Your task to perform on an android device: Search for "bose quietcomfort 35" on walmart.com, select the first entry, add it to the cart, then select checkout. Image 0: 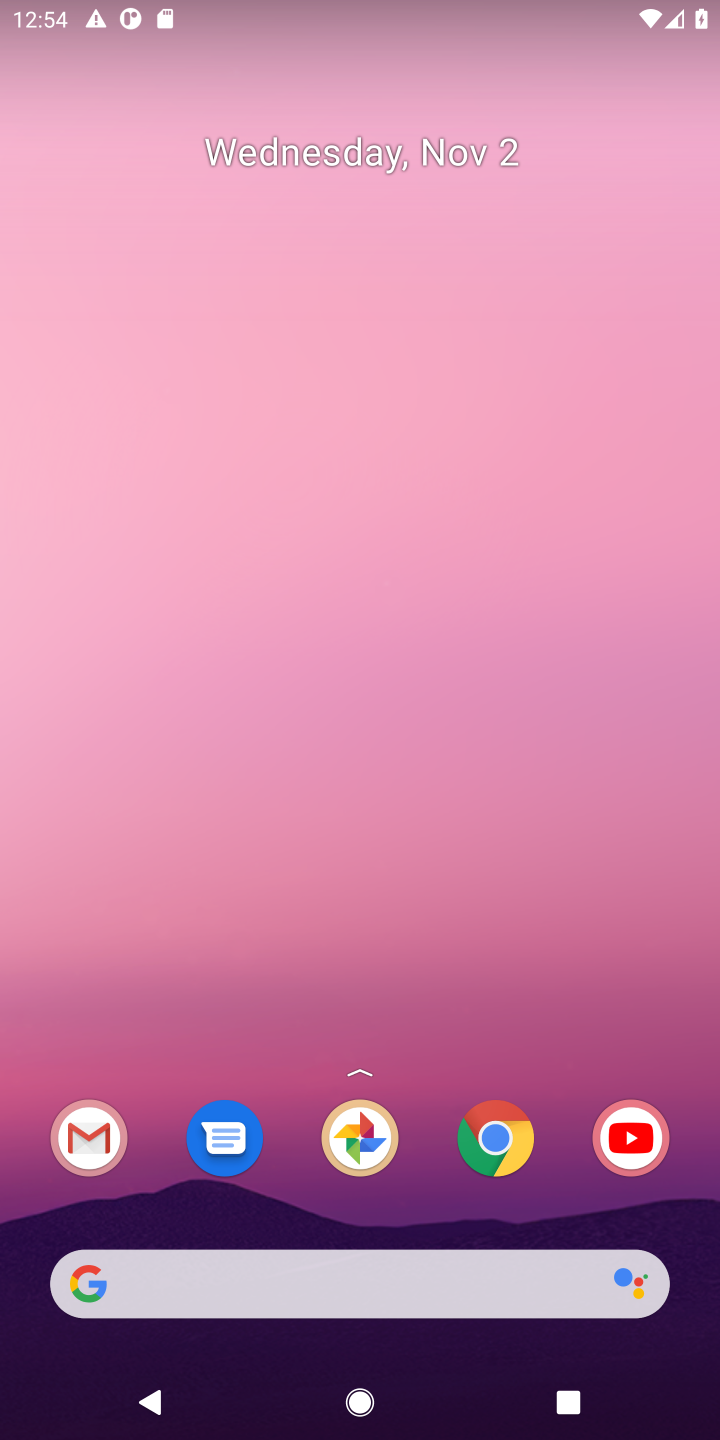
Step 0: click (482, 1150)
Your task to perform on an android device: Search for "bose quietcomfort 35" on walmart.com, select the first entry, add it to the cart, then select checkout. Image 1: 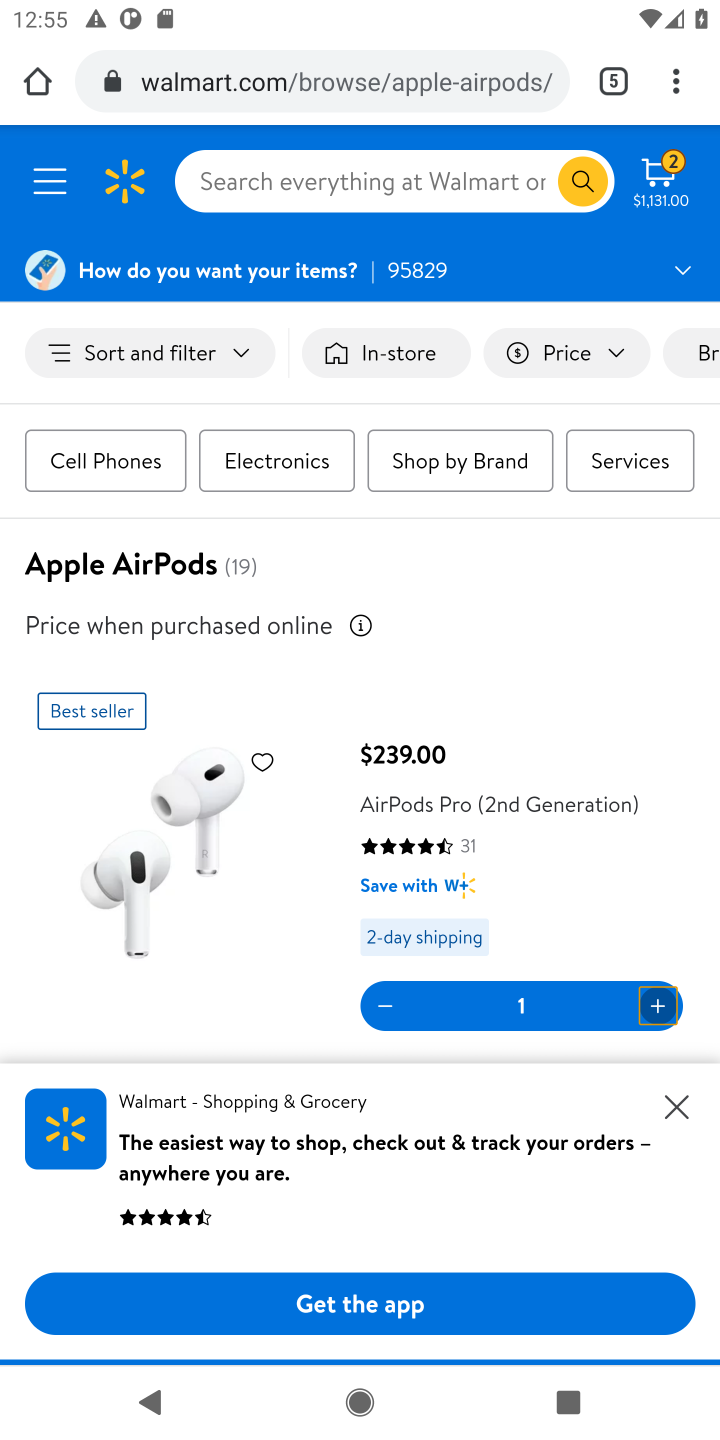
Step 1: click (341, 172)
Your task to perform on an android device: Search for "bose quietcomfort 35" on walmart.com, select the first entry, add it to the cart, then select checkout. Image 2: 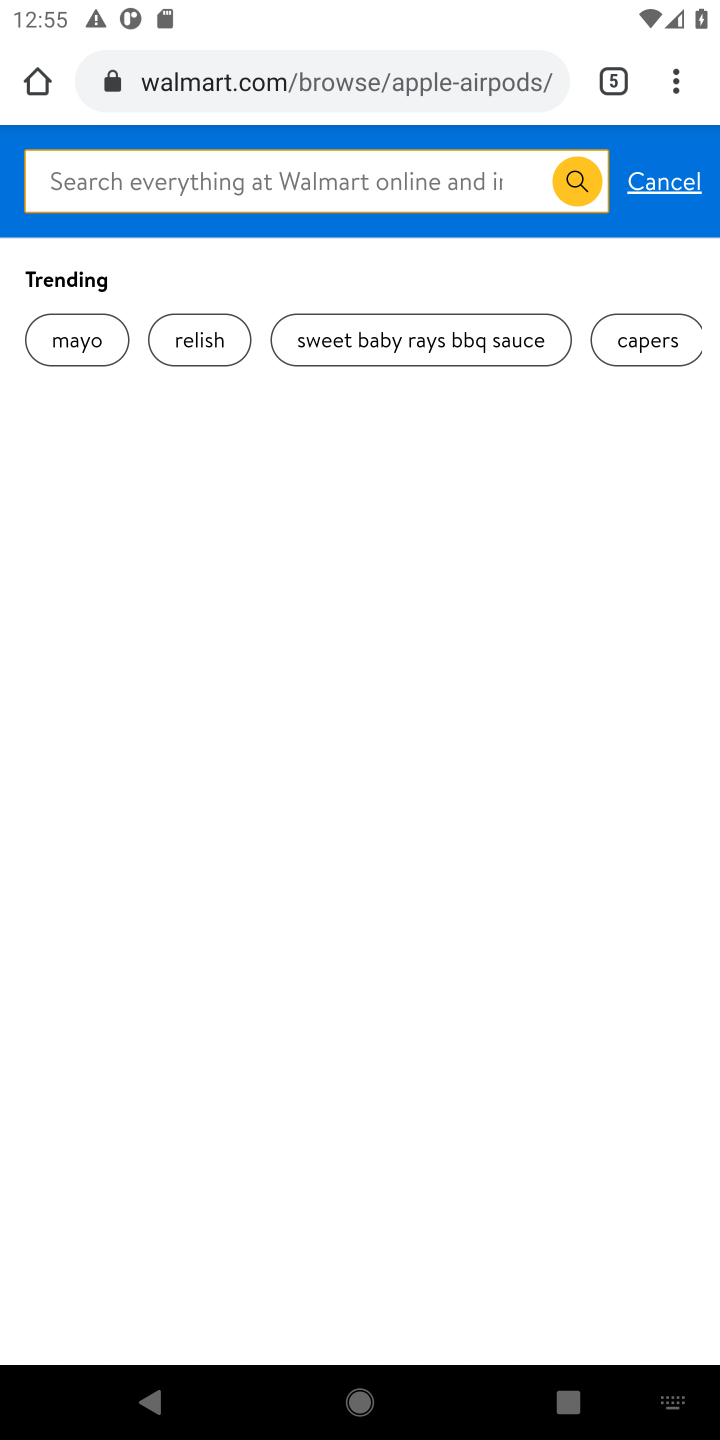
Step 2: type "bose quietcomfort 35"
Your task to perform on an android device: Search for "bose quietcomfort 35" on walmart.com, select the first entry, add it to the cart, then select checkout. Image 3: 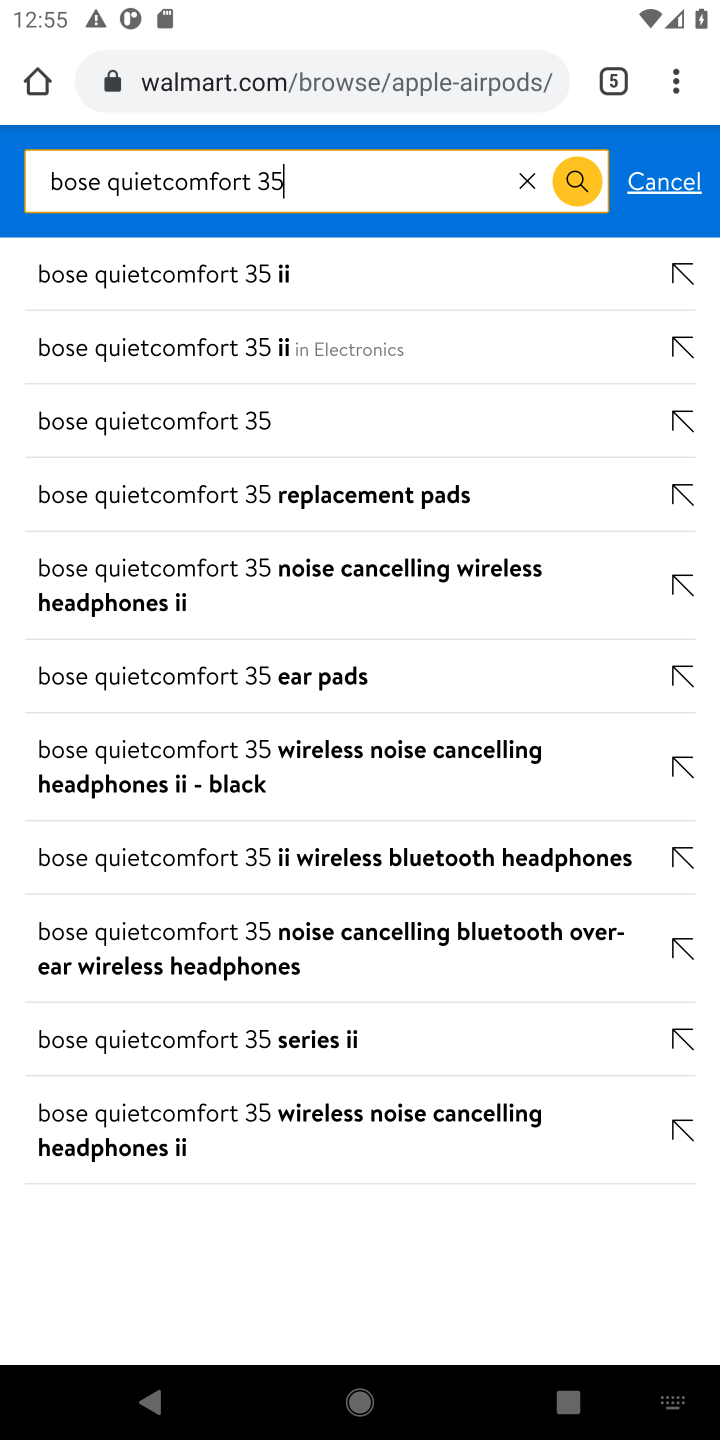
Step 3: click (282, 355)
Your task to perform on an android device: Search for "bose quietcomfort 35" on walmart.com, select the first entry, add it to the cart, then select checkout. Image 4: 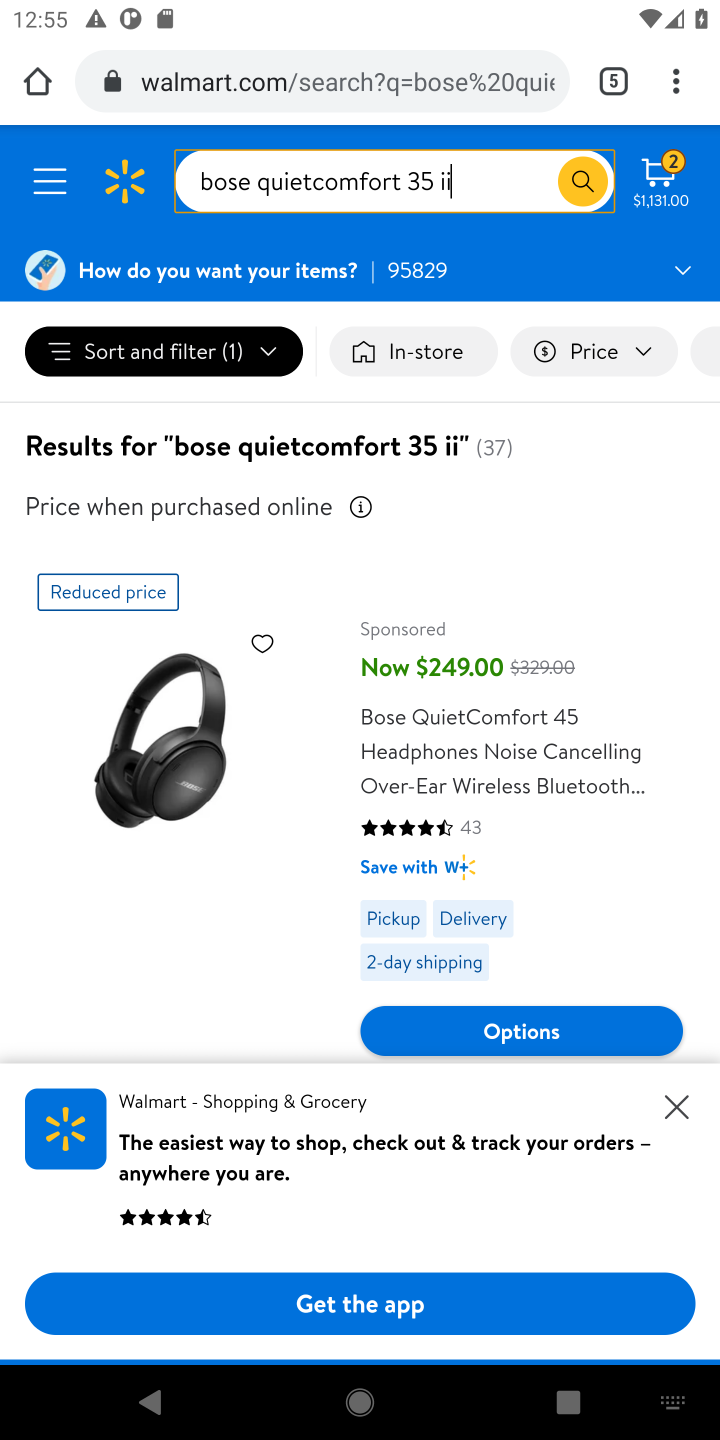
Step 4: click (673, 1099)
Your task to perform on an android device: Search for "bose quietcomfort 35" on walmart.com, select the first entry, add it to the cart, then select checkout. Image 5: 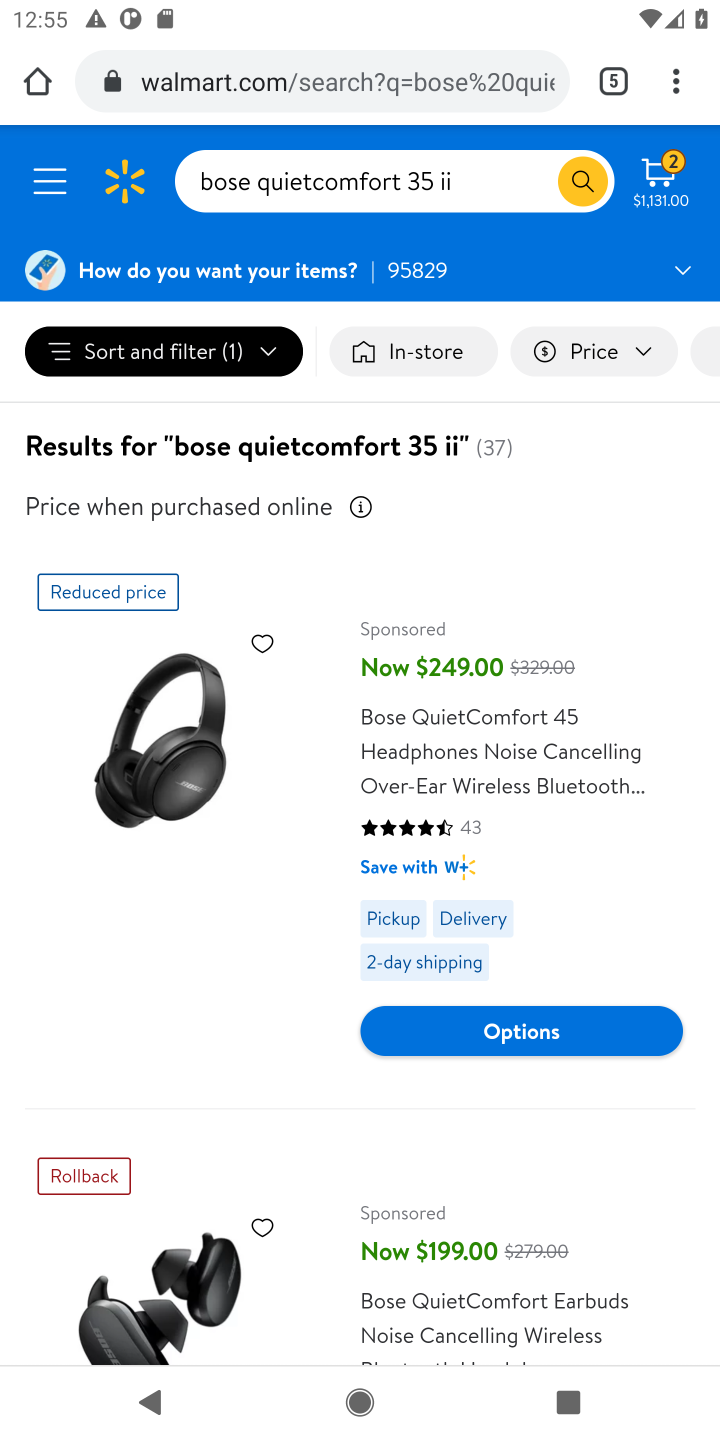
Step 5: click (555, 788)
Your task to perform on an android device: Search for "bose quietcomfort 35" on walmart.com, select the first entry, add it to the cart, then select checkout. Image 6: 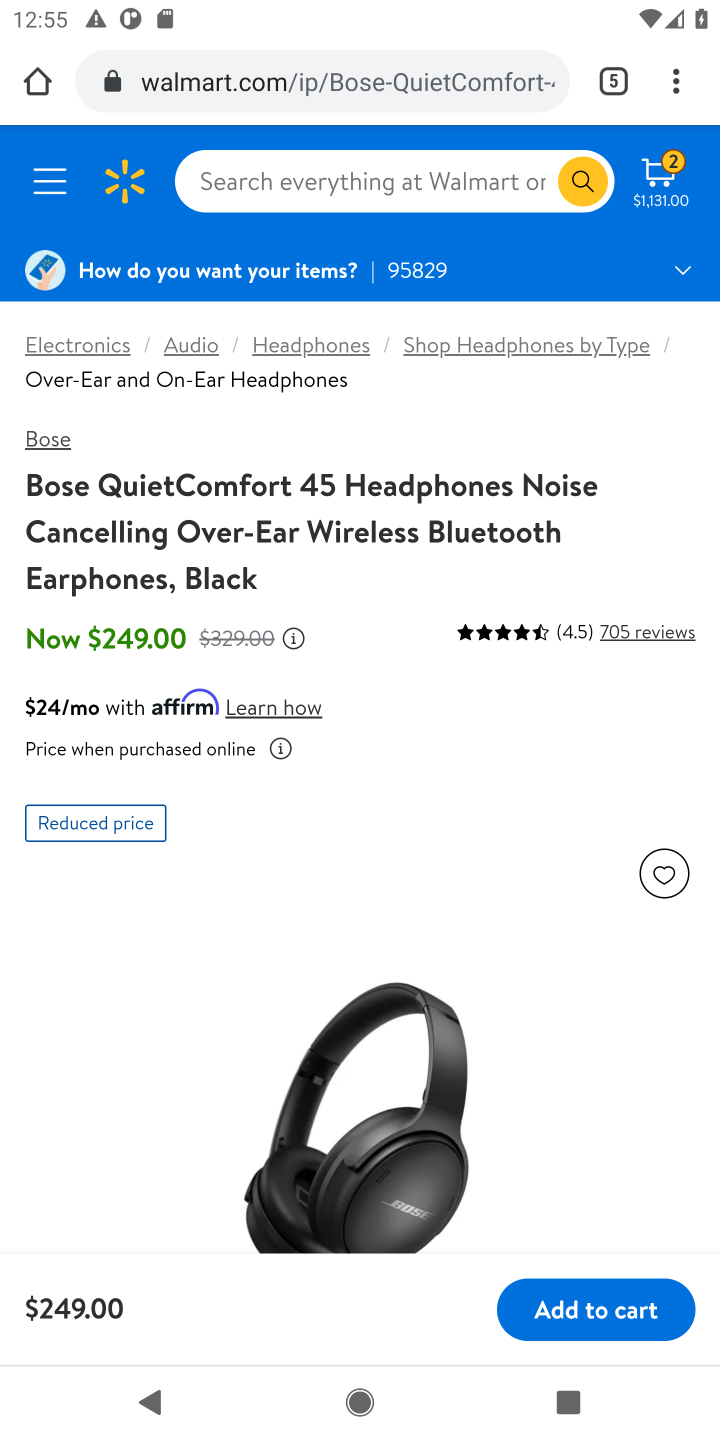
Step 6: click (596, 1316)
Your task to perform on an android device: Search for "bose quietcomfort 35" on walmart.com, select the first entry, add it to the cart, then select checkout. Image 7: 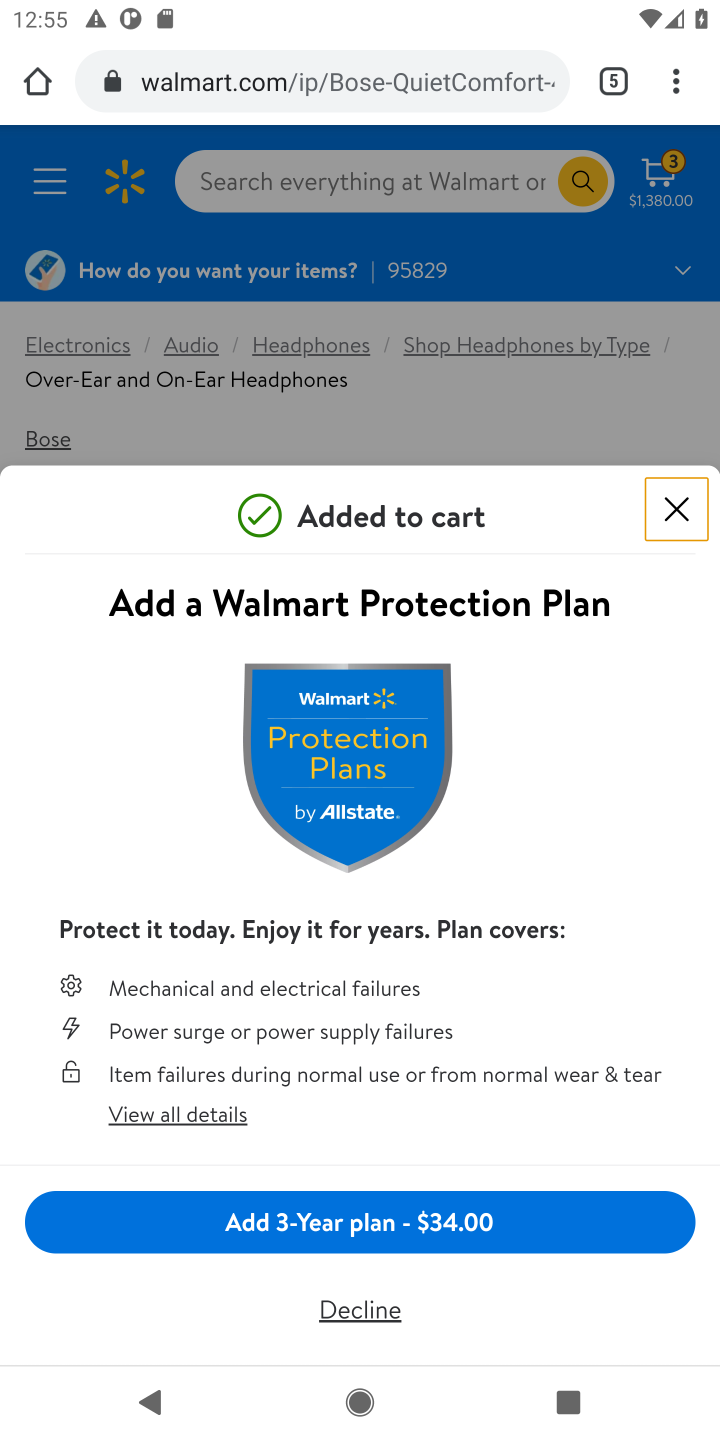
Step 7: task complete